Your task to perform on an android device: Open Youtube and go to the subscriptions tab Image 0: 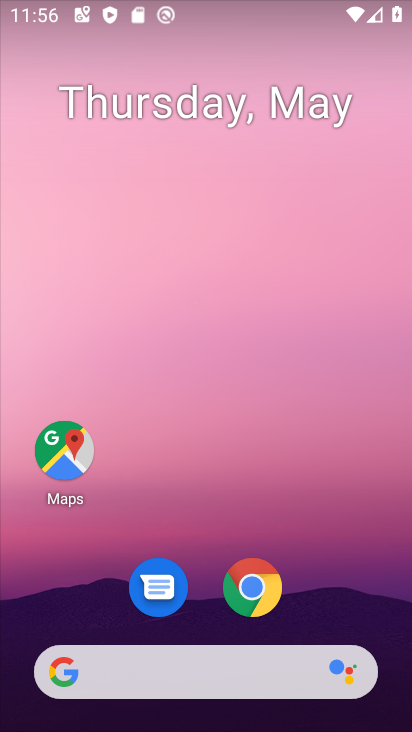
Step 0: drag from (145, 675) to (122, 84)
Your task to perform on an android device: Open Youtube and go to the subscriptions tab Image 1: 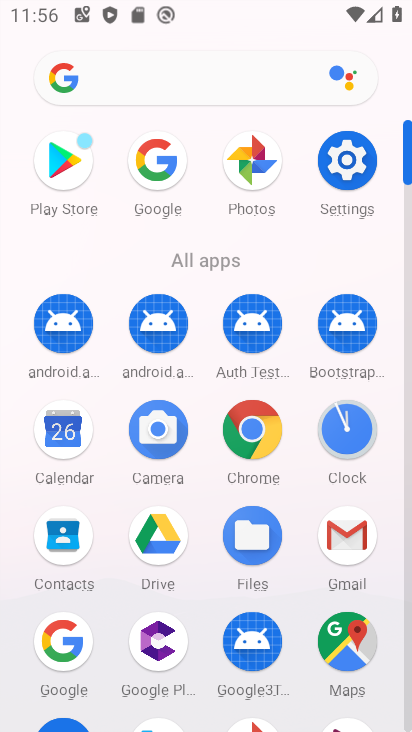
Step 1: drag from (318, 660) to (366, 222)
Your task to perform on an android device: Open Youtube and go to the subscriptions tab Image 2: 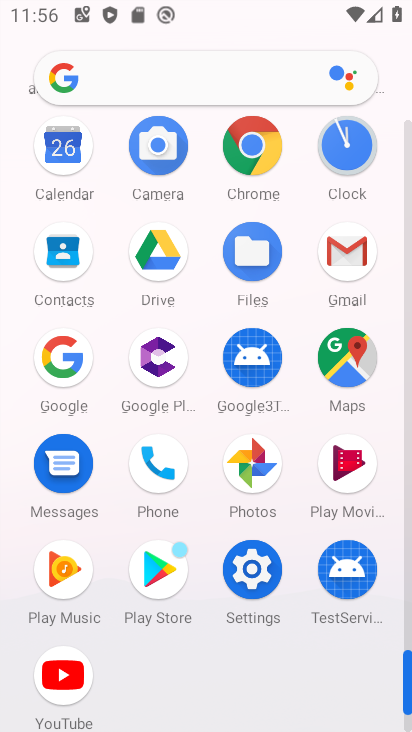
Step 2: click (69, 690)
Your task to perform on an android device: Open Youtube and go to the subscriptions tab Image 3: 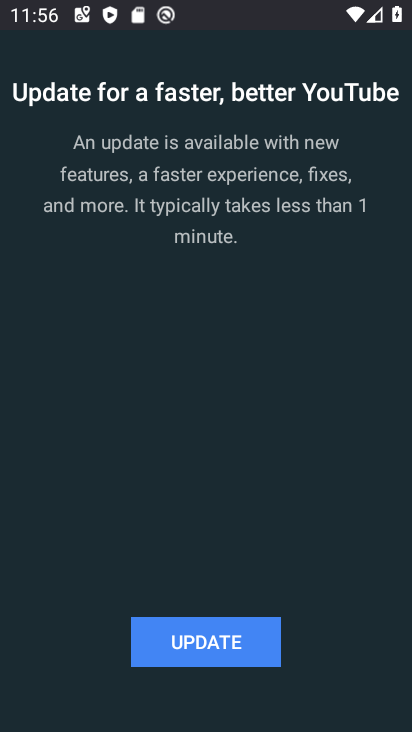
Step 3: click (237, 638)
Your task to perform on an android device: Open Youtube and go to the subscriptions tab Image 4: 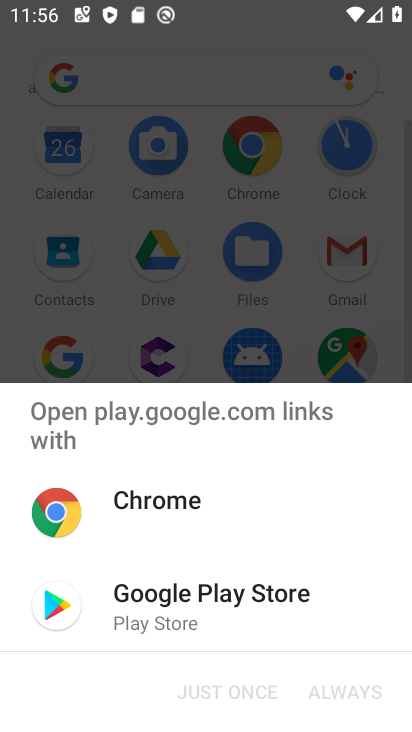
Step 4: click (200, 613)
Your task to perform on an android device: Open Youtube and go to the subscriptions tab Image 5: 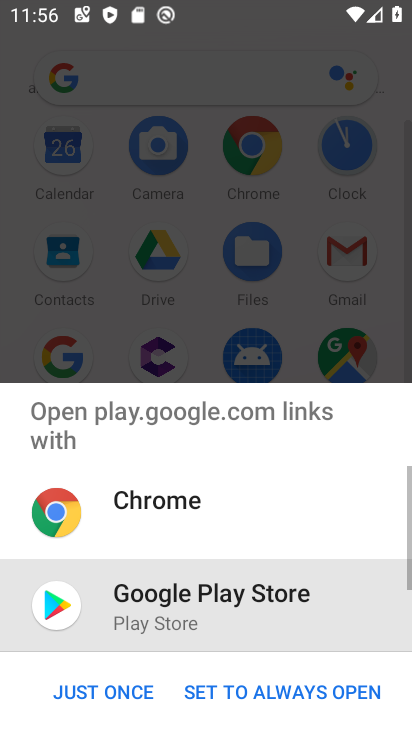
Step 5: click (87, 693)
Your task to perform on an android device: Open Youtube and go to the subscriptions tab Image 6: 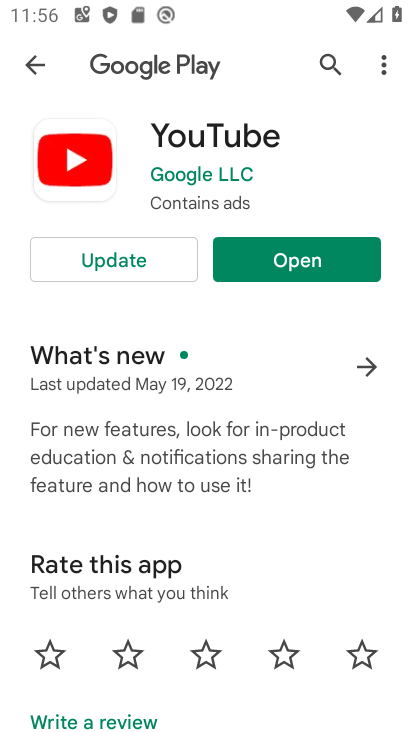
Step 6: click (117, 258)
Your task to perform on an android device: Open Youtube and go to the subscriptions tab Image 7: 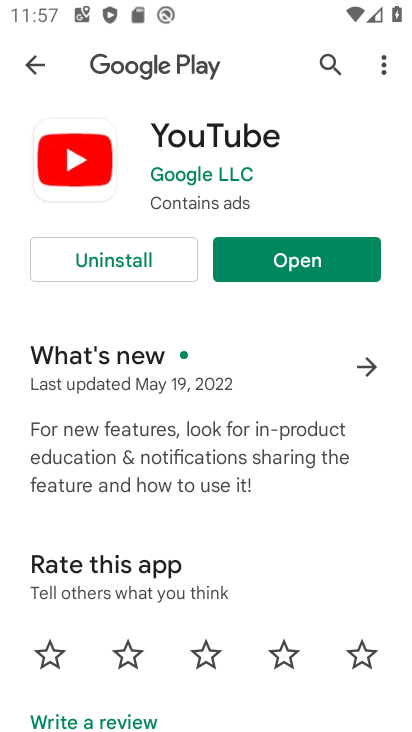
Step 7: click (344, 262)
Your task to perform on an android device: Open Youtube and go to the subscriptions tab Image 8: 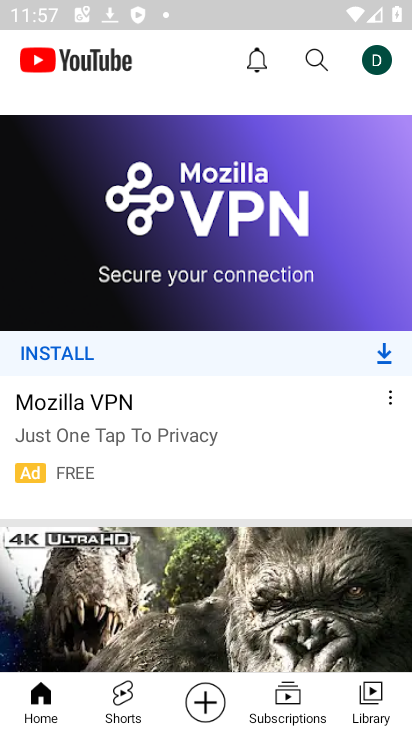
Step 8: click (280, 703)
Your task to perform on an android device: Open Youtube and go to the subscriptions tab Image 9: 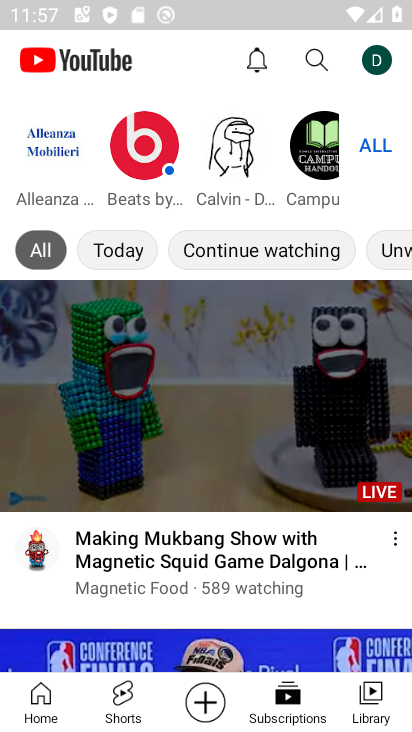
Step 9: task complete